Your task to perform on an android device: Check the news Image 0: 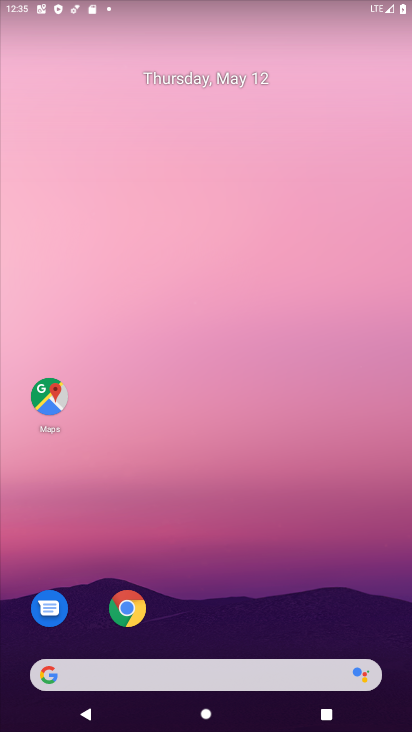
Step 0: click (113, 675)
Your task to perform on an android device: Check the news Image 1: 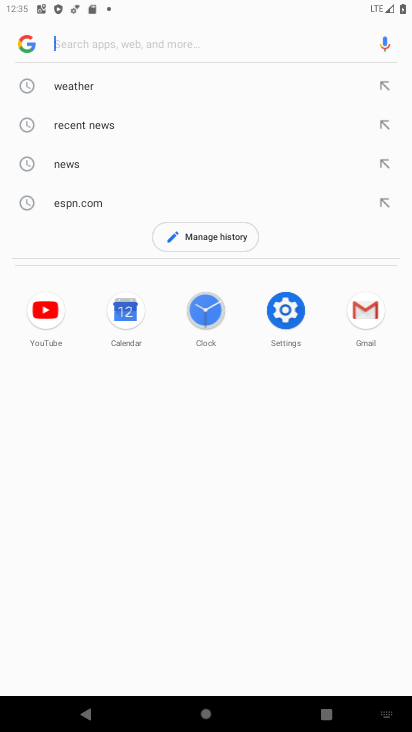
Step 1: click (69, 165)
Your task to perform on an android device: Check the news Image 2: 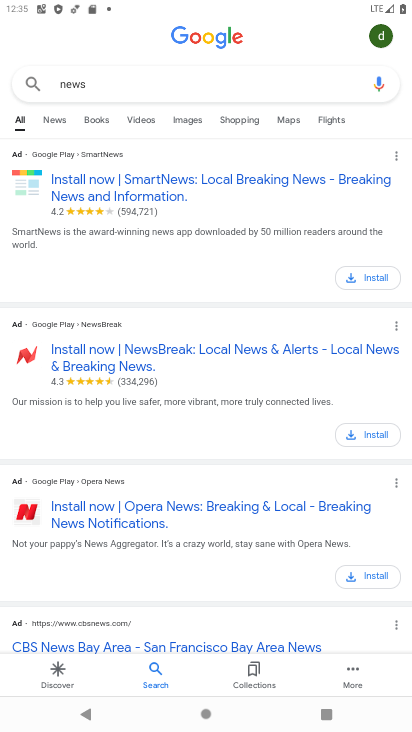
Step 2: click (57, 125)
Your task to perform on an android device: Check the news Image 3: 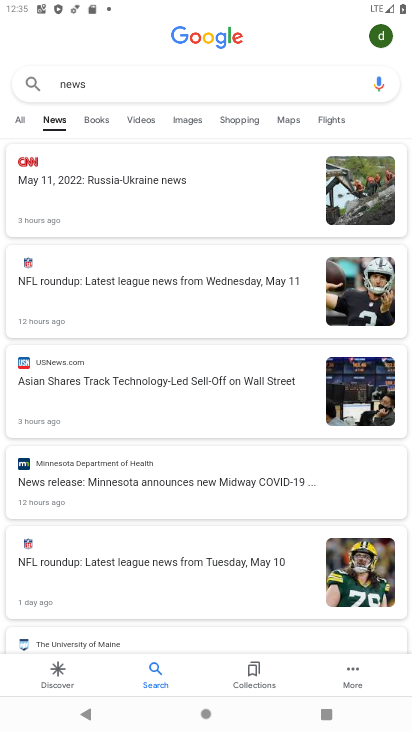
Step 3: click (64, 223)
Your task to perform on an android device: Check the news Image 4: 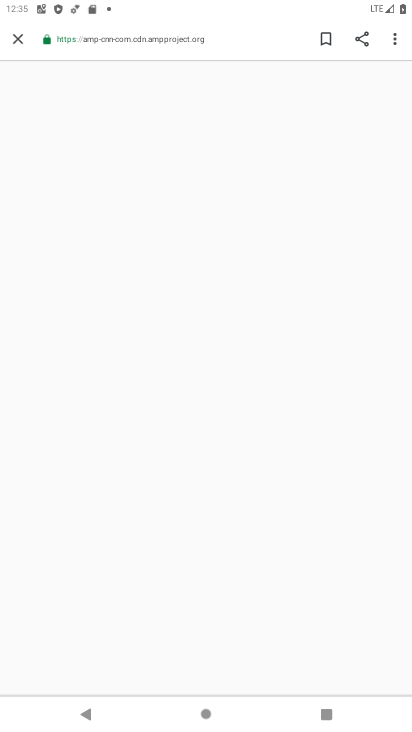
Step 4: drag from (108, 235) to (127, 389)
Your task to perform on an android device: Check the news Image 5: 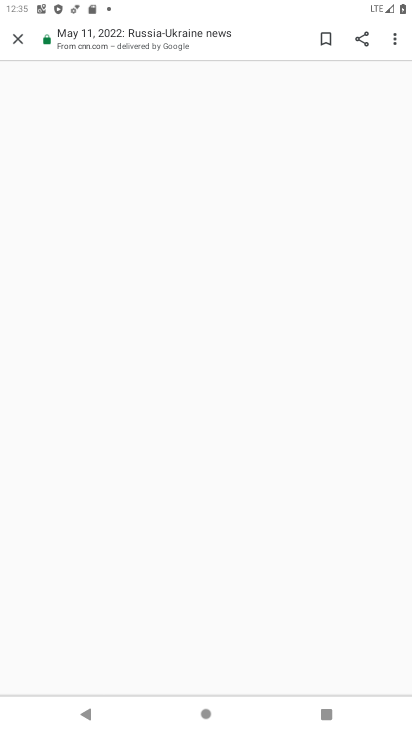
Step 5: drag from (206, 287) to (230, 532)
Your task to perform on an android device: Check the news Image 6: 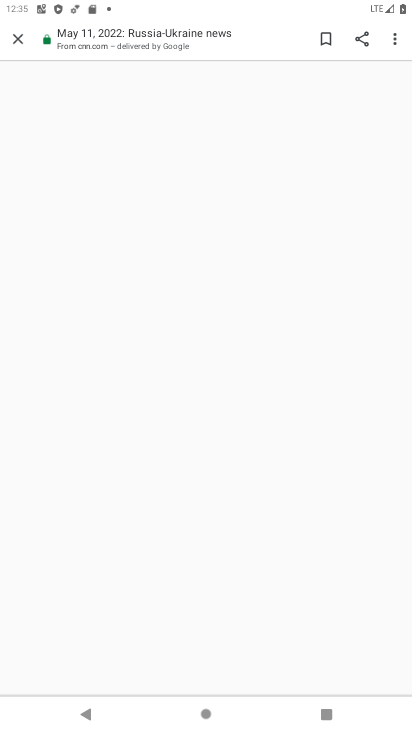
Step 6: press back button
Your task to perform on an android device: Check the news Image 7: 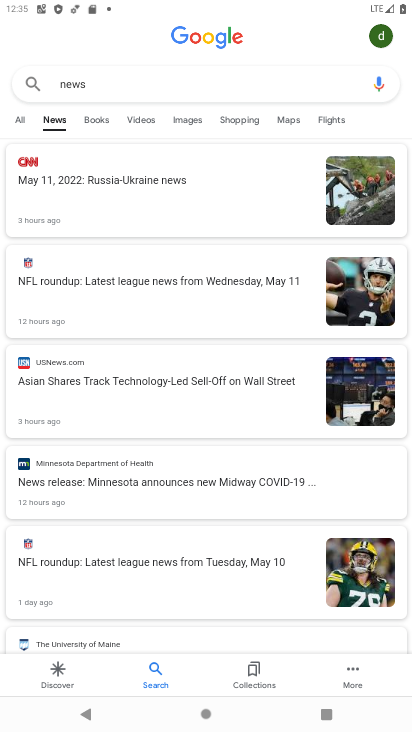
Step 7: click (102, 392)
Your task to perform on an android device: Check the news Image 8: 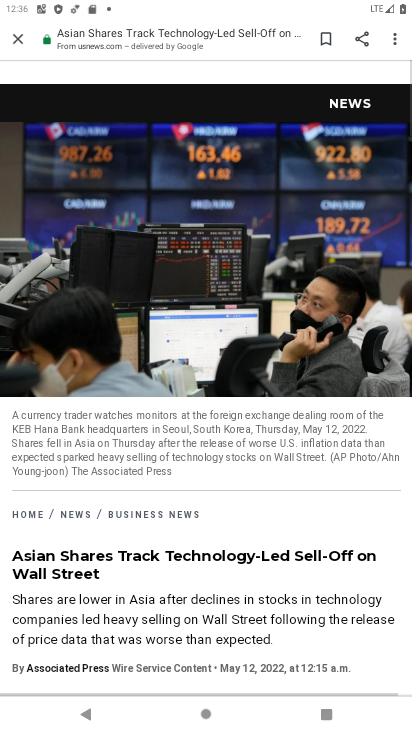
Step 8: task complete